Your task to perform on an android device: Clear all items from cart on costco. Search for lenovo thinkpad on costco, select the first entry, and add it to the cart. Image 0: 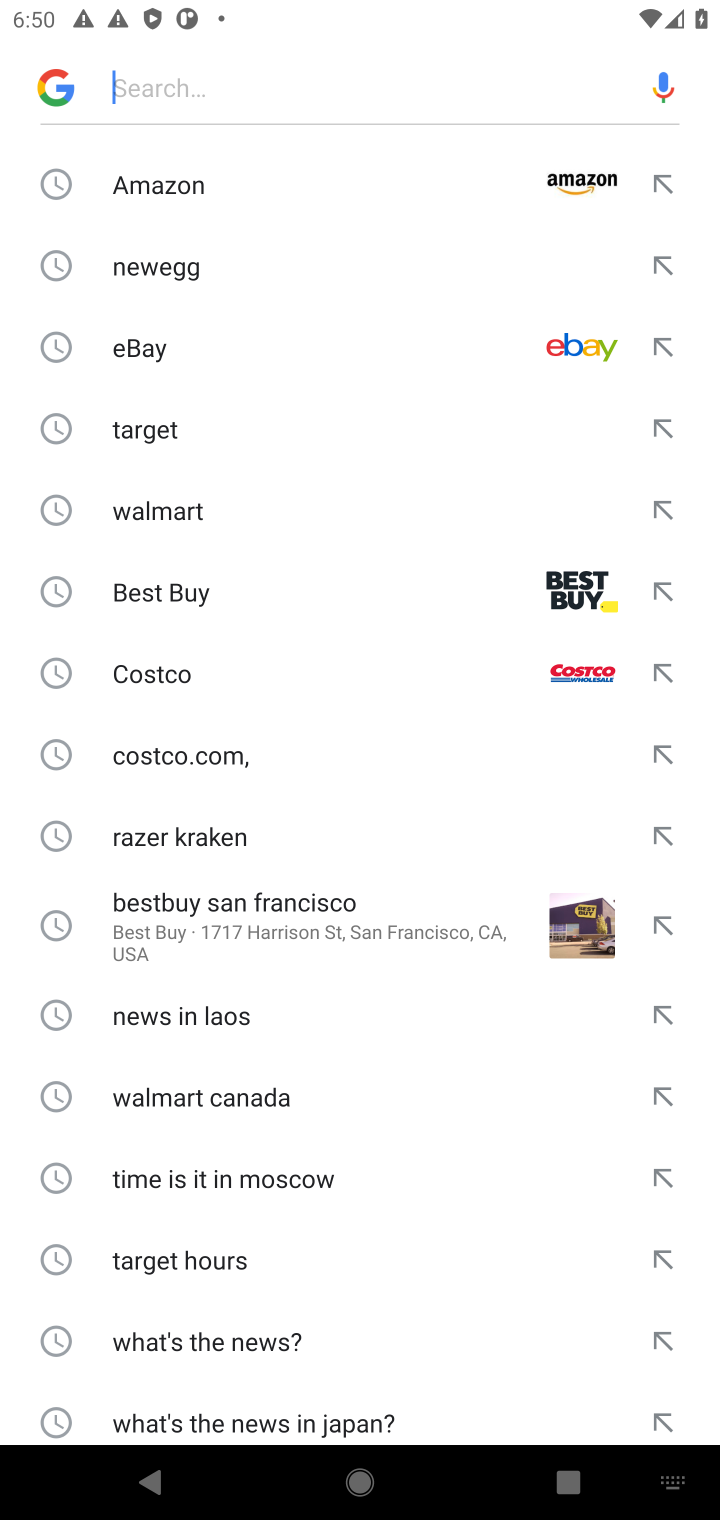
Step 0: type "costco.com"
Your task to perform on an android device: Clear all items from cart on costco. Search for lenovo thinkpad on costco, select the first entry, and add it to the cart. Image 1: 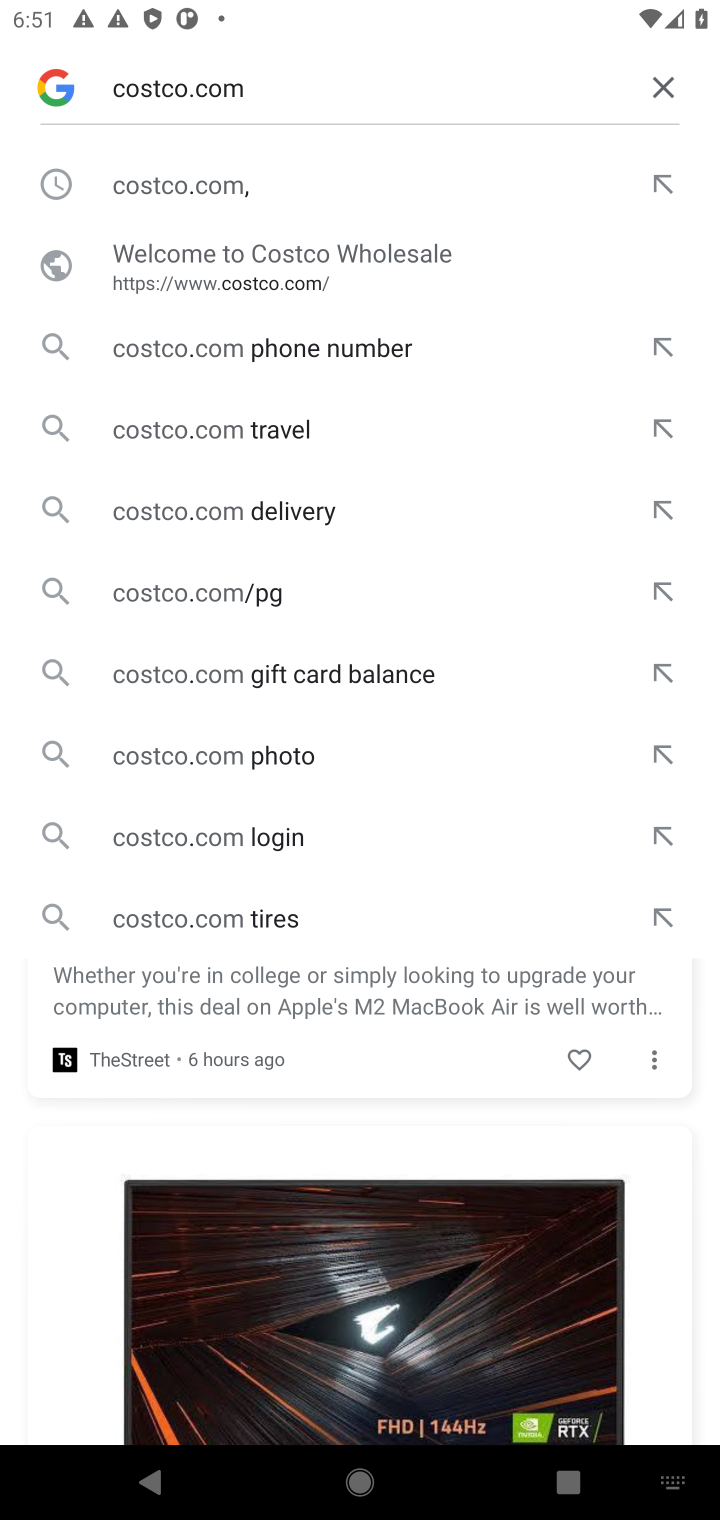
Step 1: click (164, 280)
Your task to perform on an android device: Clear all items from cart on costco. Search for lenovo thinkpad on costco, select the first entry, and add it to the cart. Image 2: 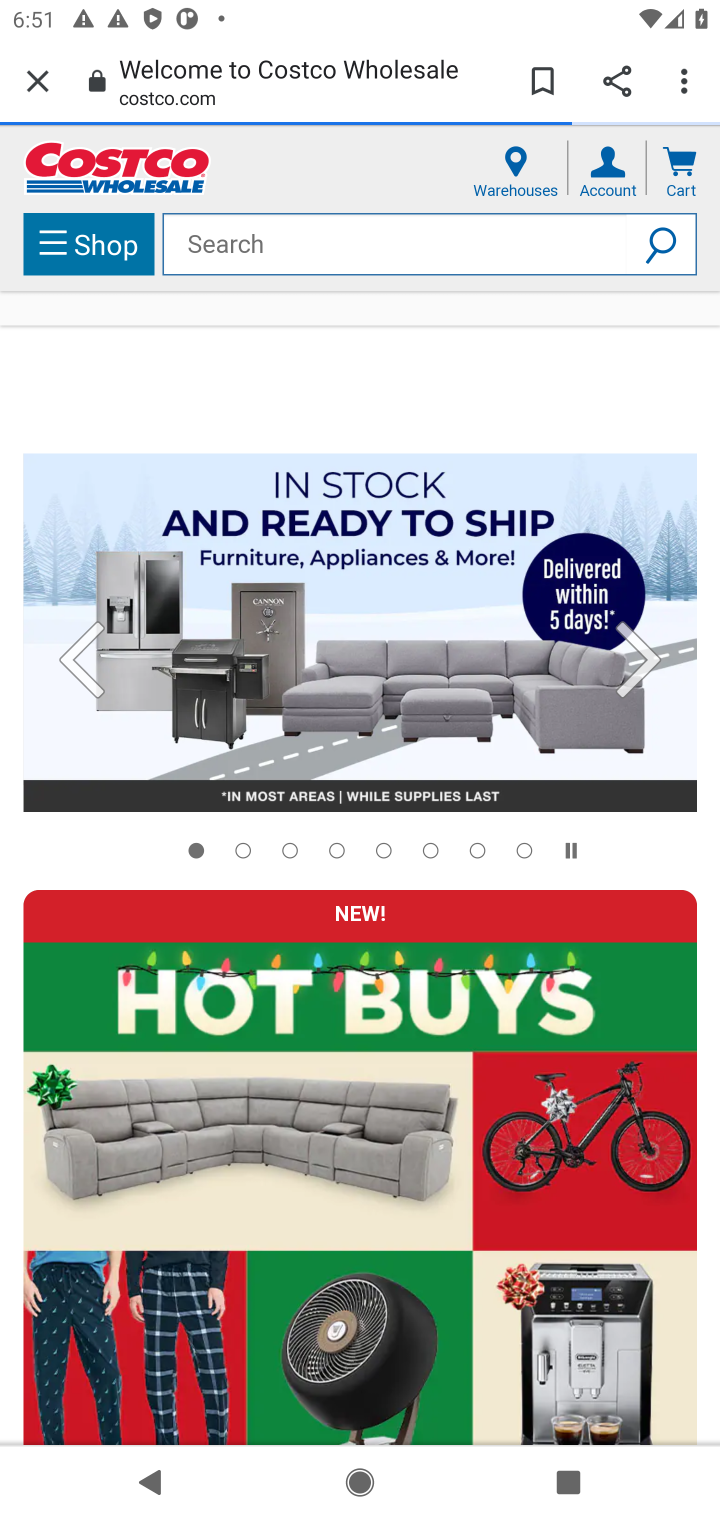
Step 2: click (690, 178)
Your task to perform on an android device: Clear all items from cart on costco. Search for lenovo thinkpad on costco, select the first entry, and add it to the cart. Image 3: 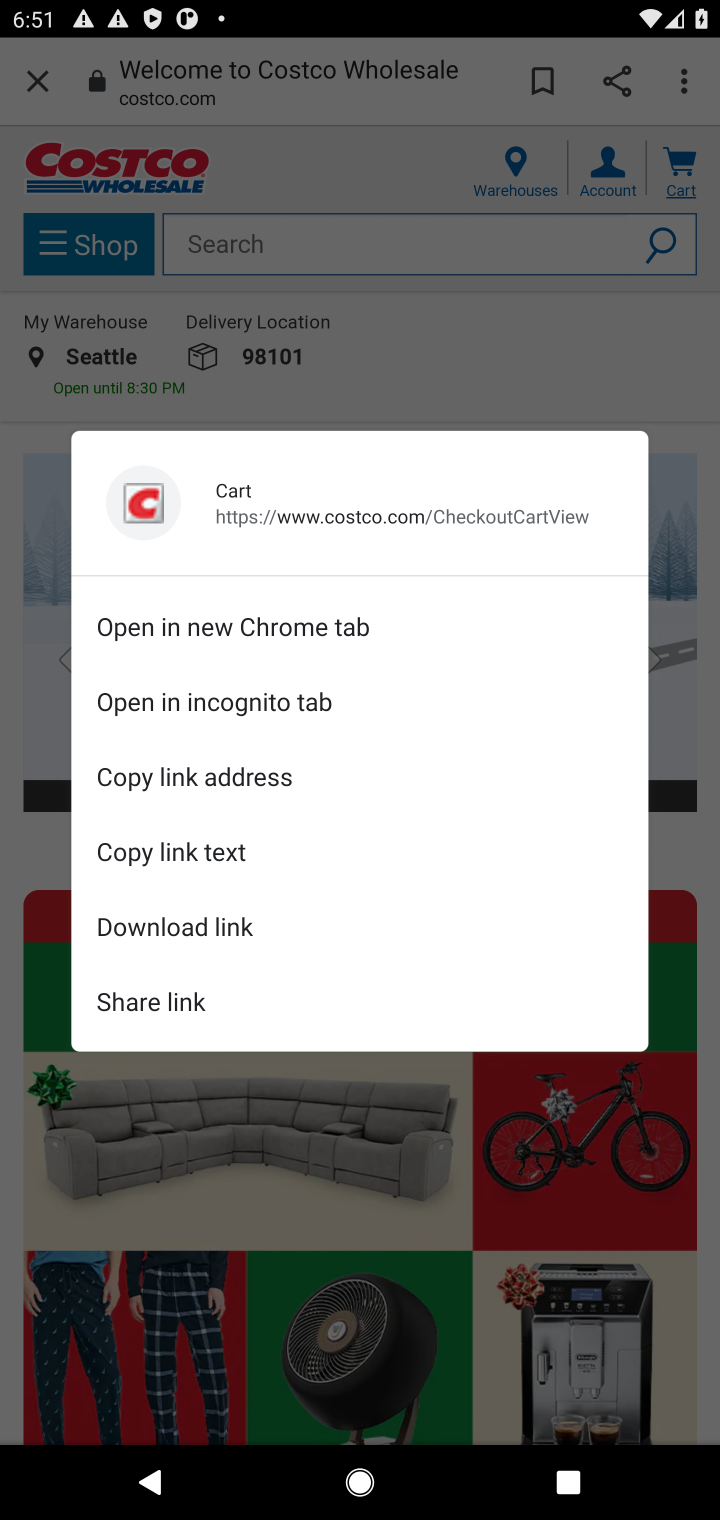
Step 3: click (675, 197)
Your task to perform on an android device: Clear all items from cart on costco. Search for lenovo thinkpad on costco, select the first entry, and add it to the cart. Image 4: 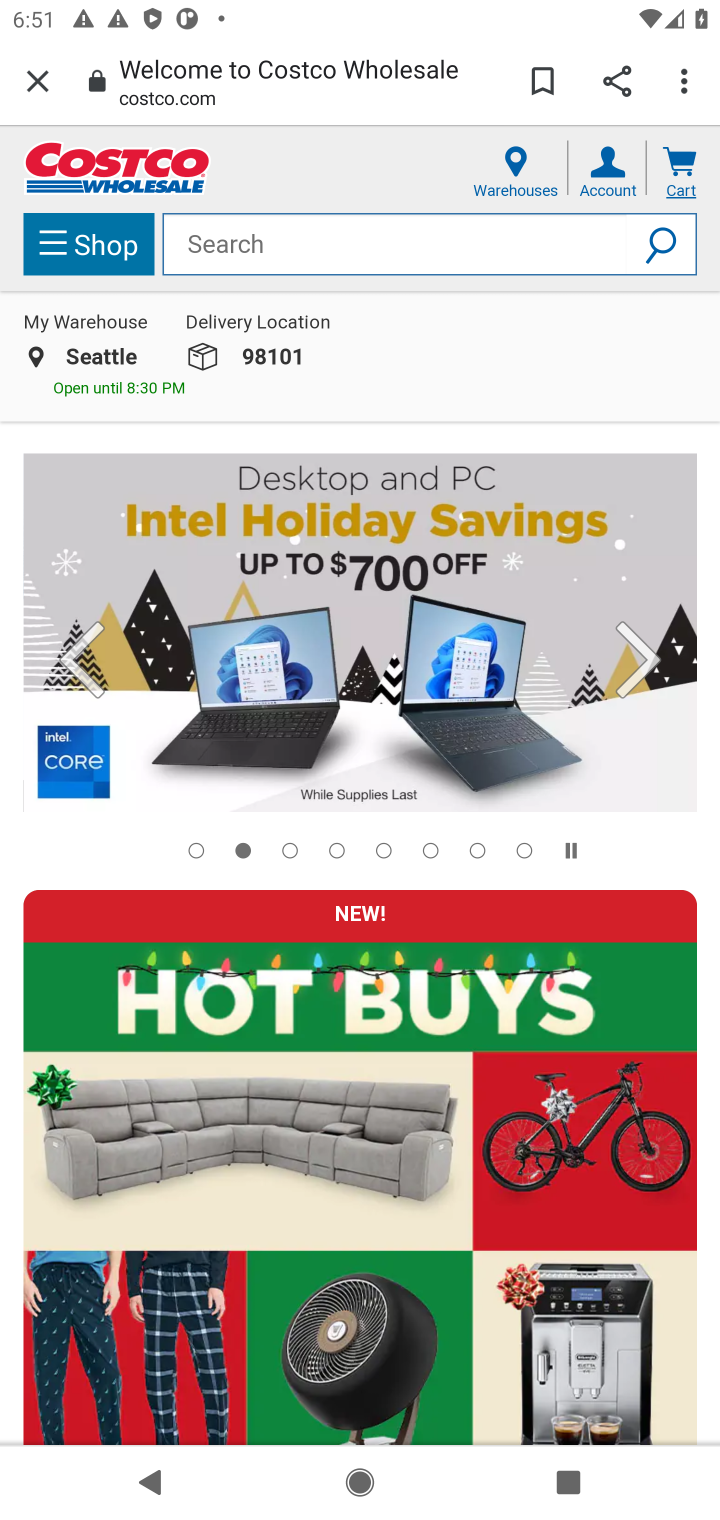
Step 4: click (689, 187)
Your task to perform on an android device: Clear all items from cart on costco. Search for lenovo thinkpad on costco, select the first entry, and add it to the cart. Image 5: 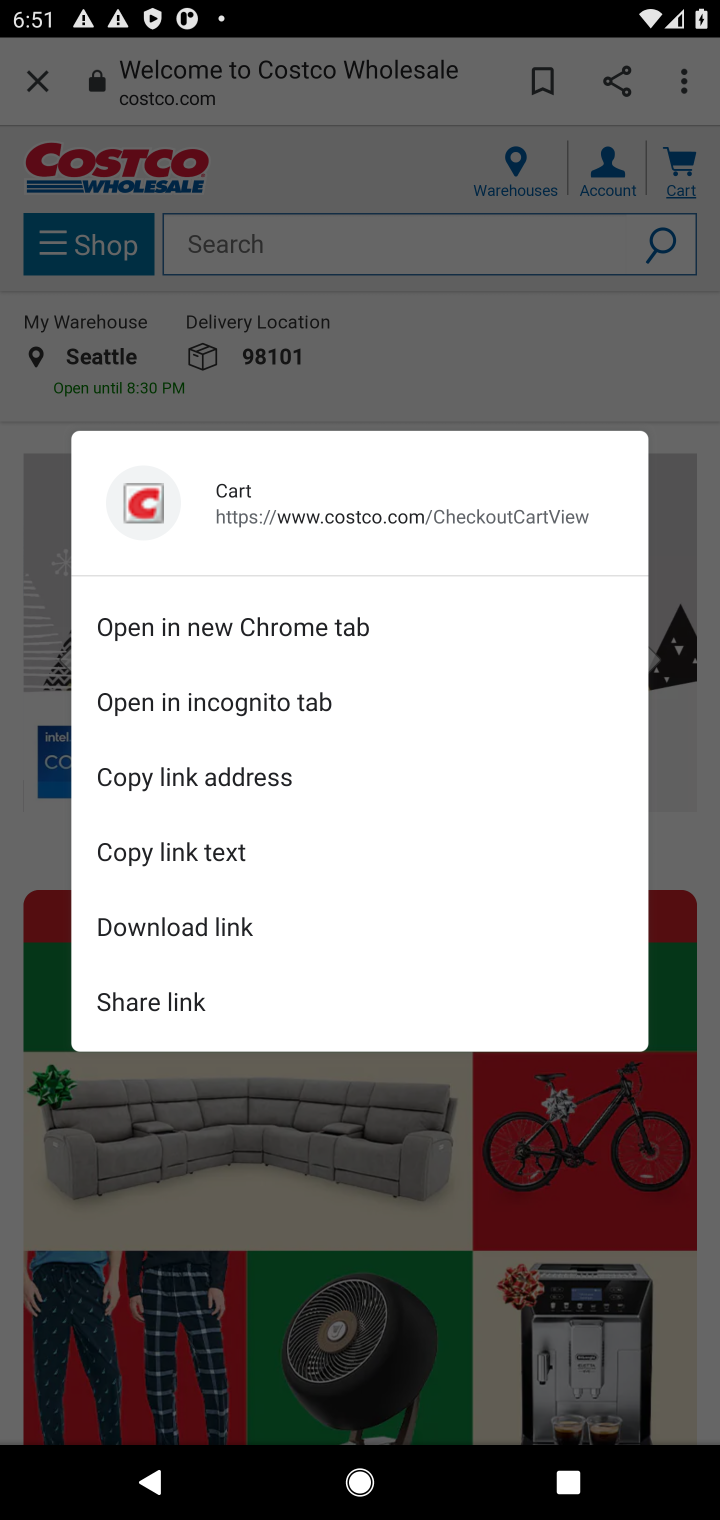
Step 5: click (689, 189)
Your task to perform on an android device: Clear all items from cart on costco. Search for lenovo thinkpad on costco, select the first entry, and add it to the cart. Image 6: 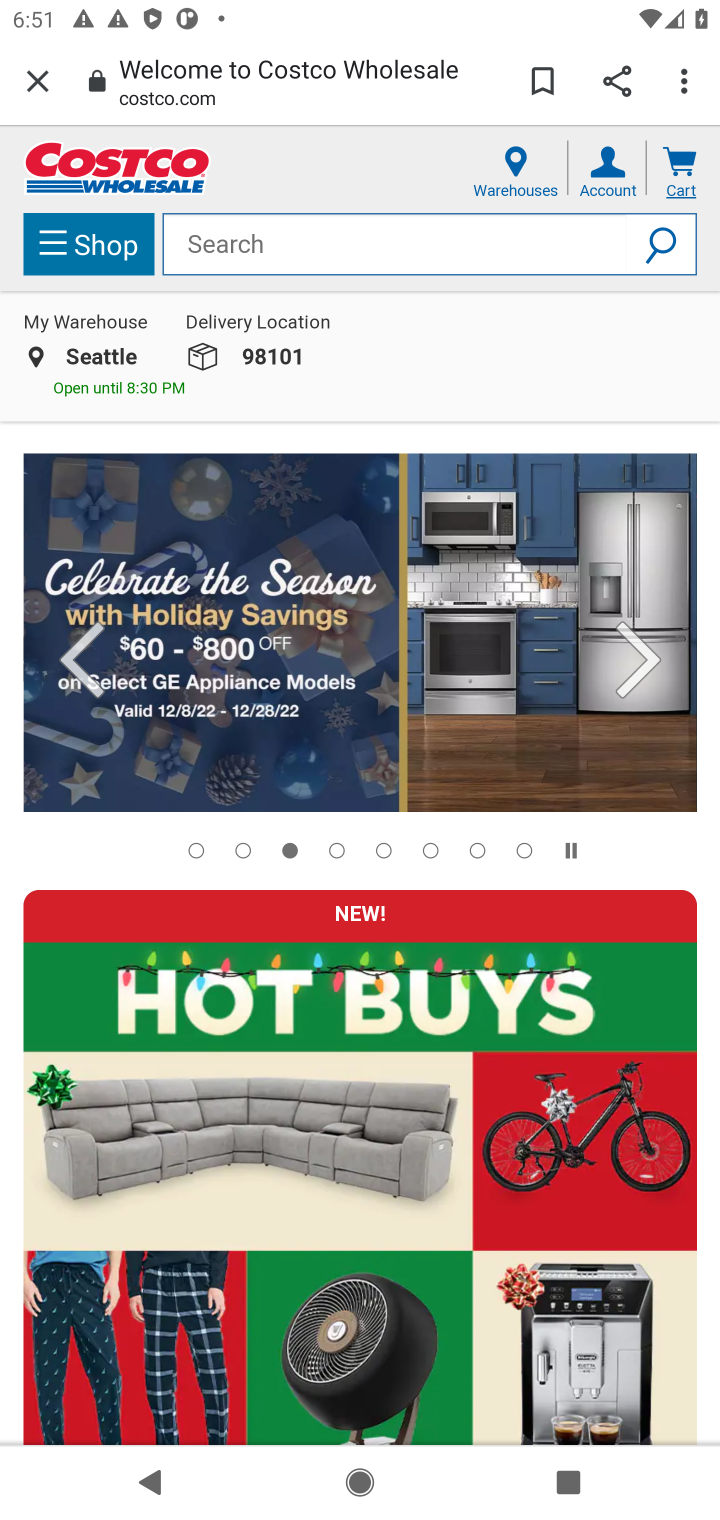
Step 6: click (689, 189)
Your task to perform on an android device: Clear all items from cart on costco. Search for lenovo thinkpad on costco, select the first entry, and add it to the cart. Image 7: 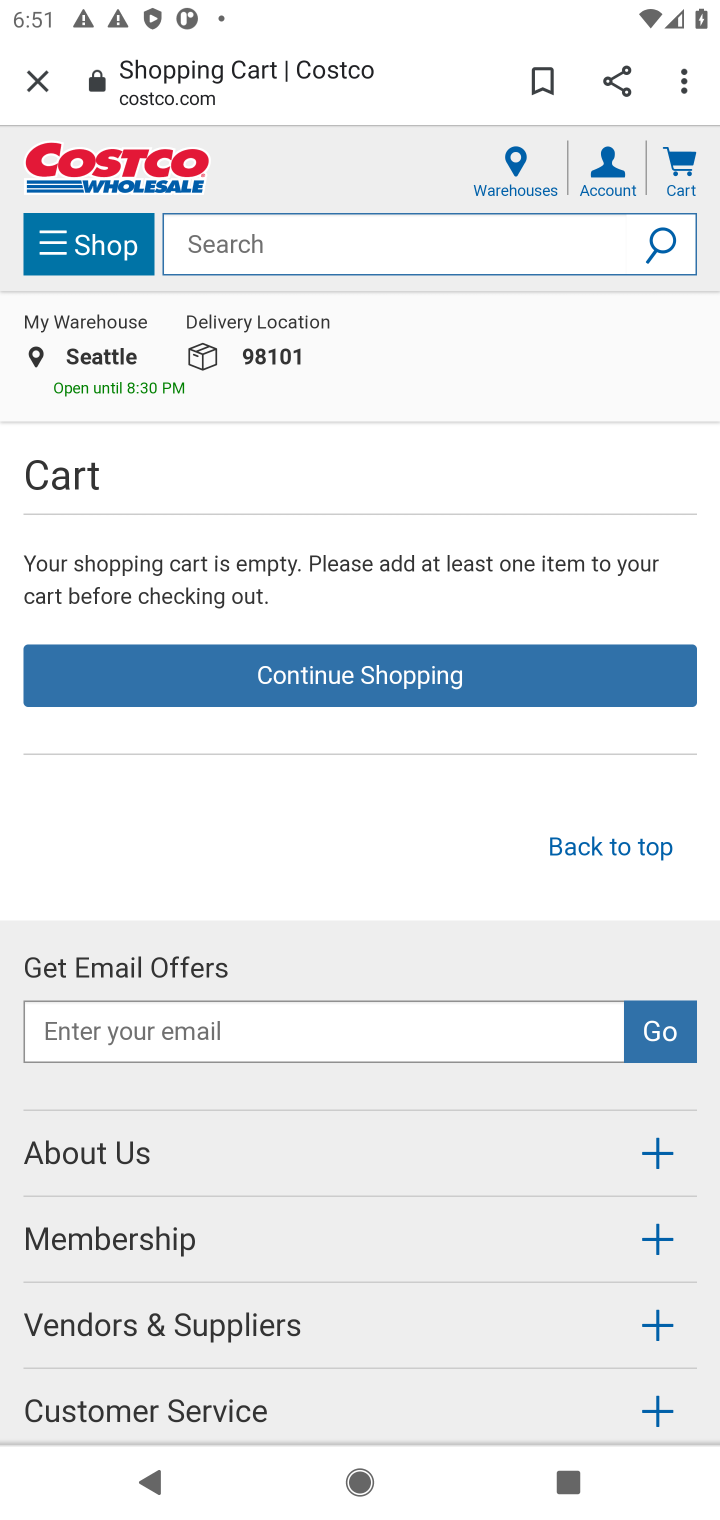
Step 7: click (258, 260)
Your task to perform on an android device: Clear all items from cart on costco. Search for lenovo thinkpad on costco, select the first entry, and add it to the cart. Image 8: 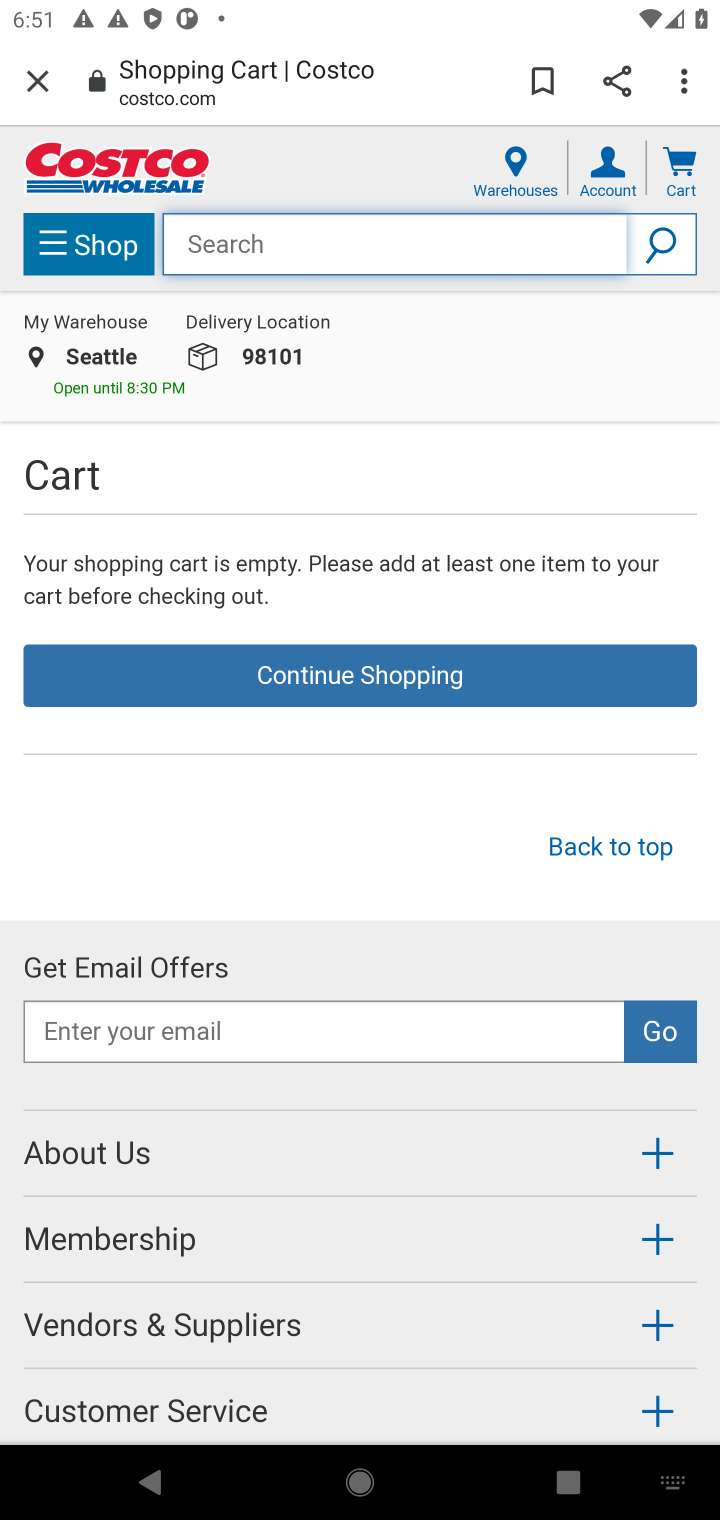
Step 8: type " lenovo thinkpad"
Your task to perform on an android device: Clear all items from cart on costco. Search for lenovo thinkpad on costco, select the first entry, and add it to the cart. Image 9: 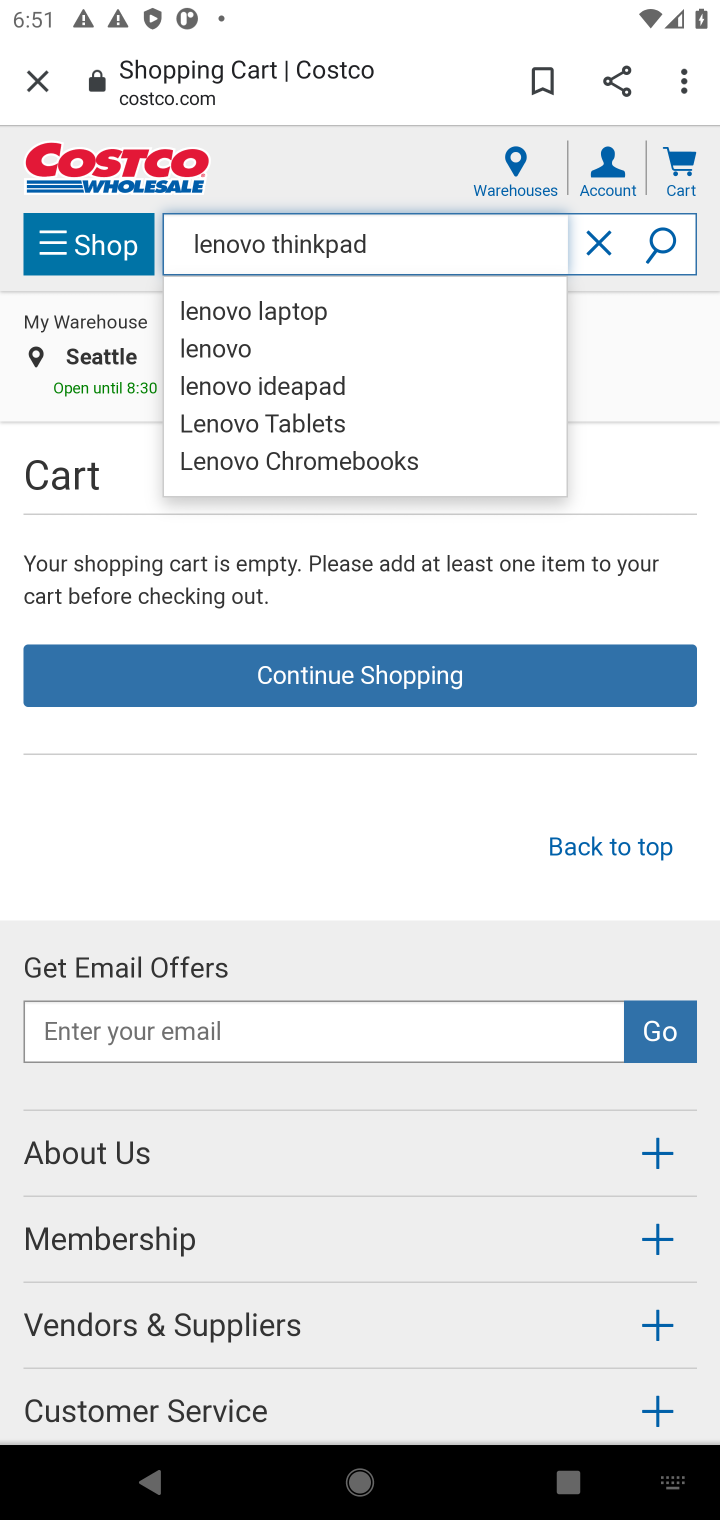
Step 9: click (662, 242)
Your task to perform on an android device: Clear all items from cart on costco. Search for lenovo thinkpad on costco, select the first entry, and add it to the cart. Image 10: 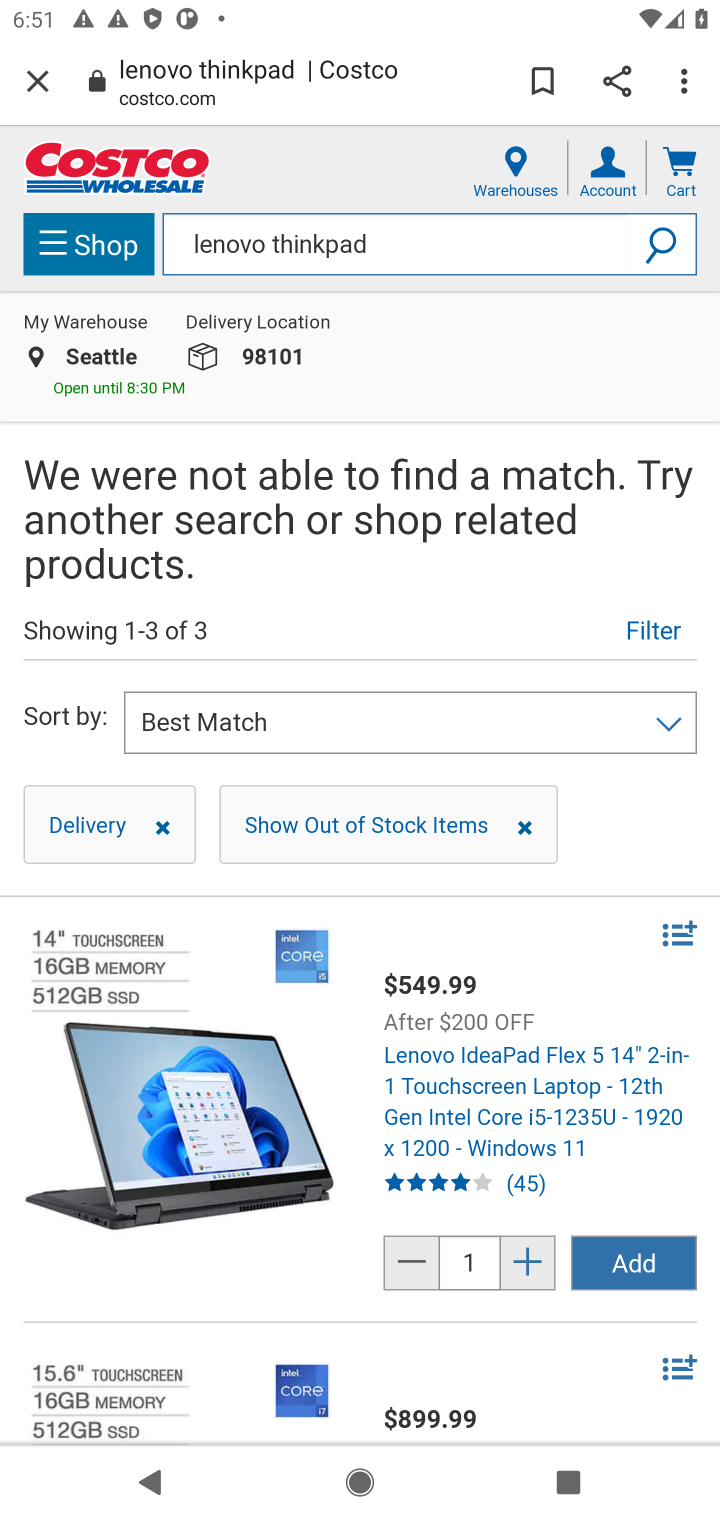
Step 10: task complete